Your task to perform on an android device: Go to Google maps Image 0: 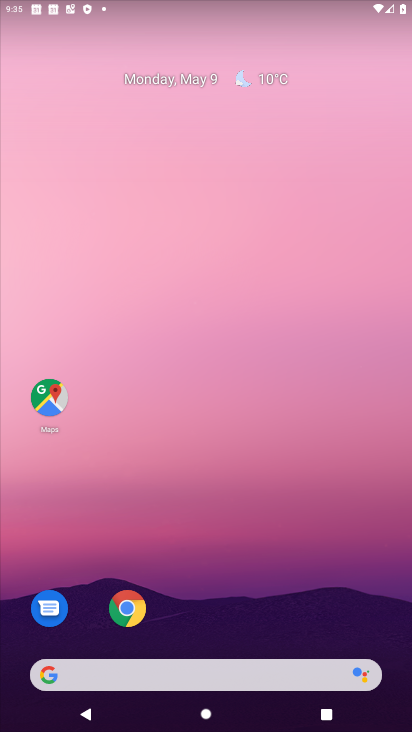
Step 0: drag from (262, 569) to (343, 0)
Your task to perform on an android device: Go to Google maps Image 1: 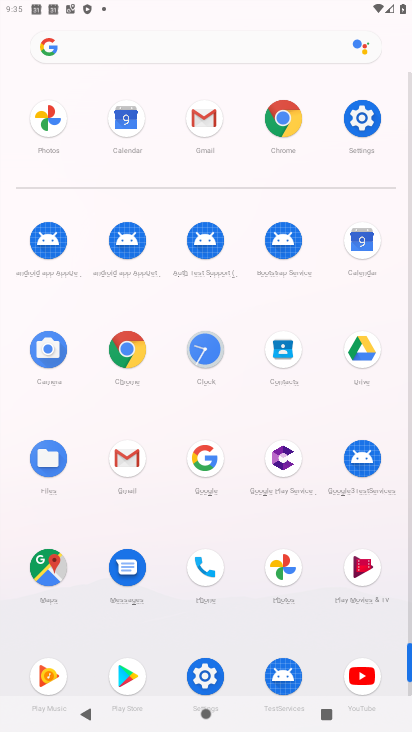
Step 1: click (222, 541)
Your task to perform on an android device: Go to Google maps Image 2: 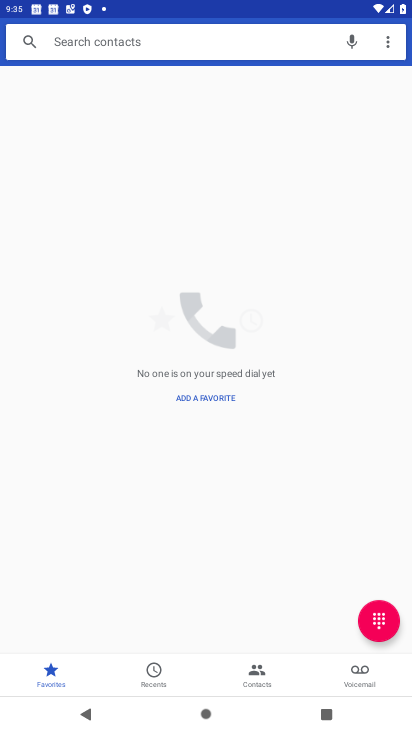
Step 2: press home button
Your task to perform on an android device: Go to Google maps Image 3: 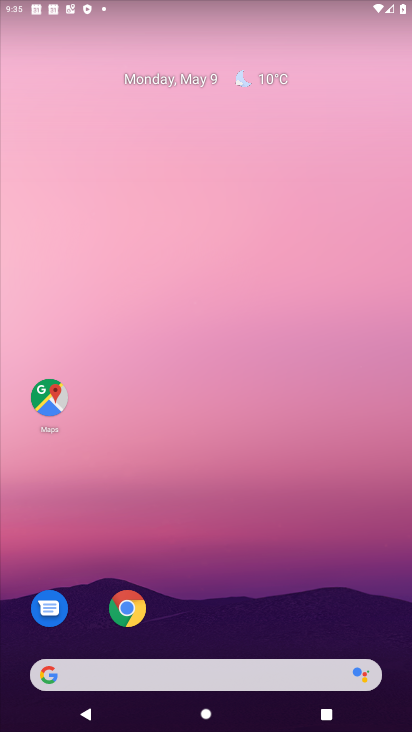
Step 3: drag from (319, 560) to (308, 182)
Your task to perform on an android device: Go to Google maps Image 4: 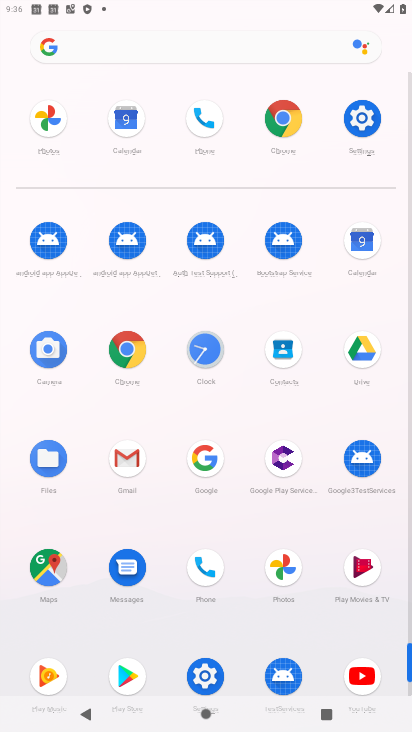
Step 4: click (54, 566)
Your task to perform on an android device: Go to Google maps Image 5: 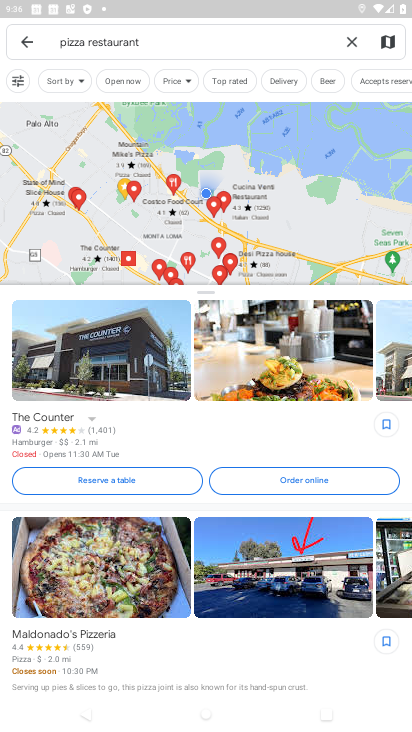
Step 5: task complete